Your task to perform on an android device: Go to Yahoo.com Image 0: 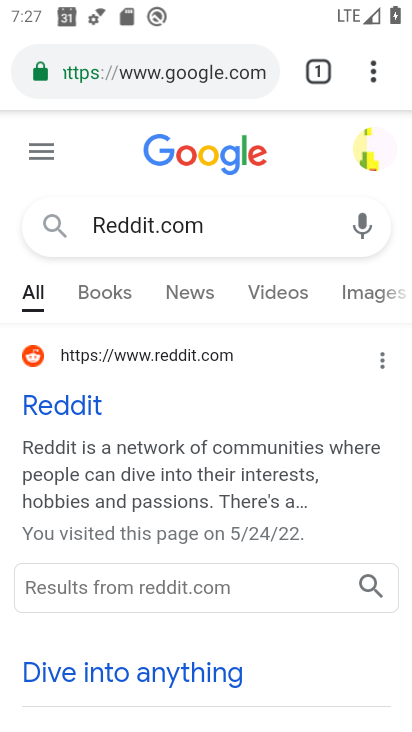
Step 0: press home button
Your task to perform on an android device: Go to Yahoo.com Image 1: 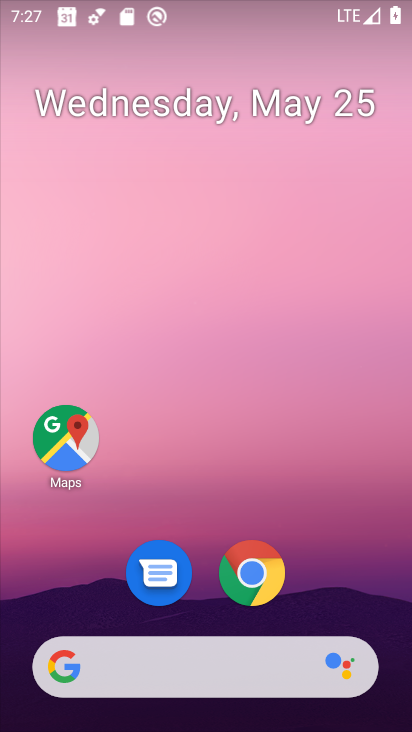
Step 1: click (244, 567)
Your task to perform on an android device: Go to Yahoo.com Image 2: 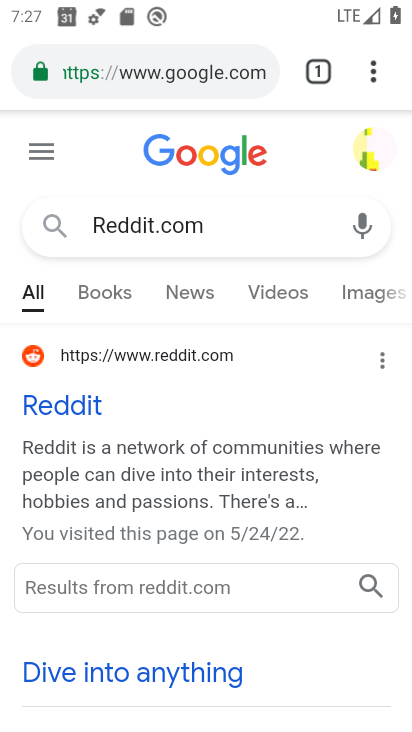
Step 2: click (263, 66)
Your task to perform on an android device: Go to Yahoo.com Image 3: 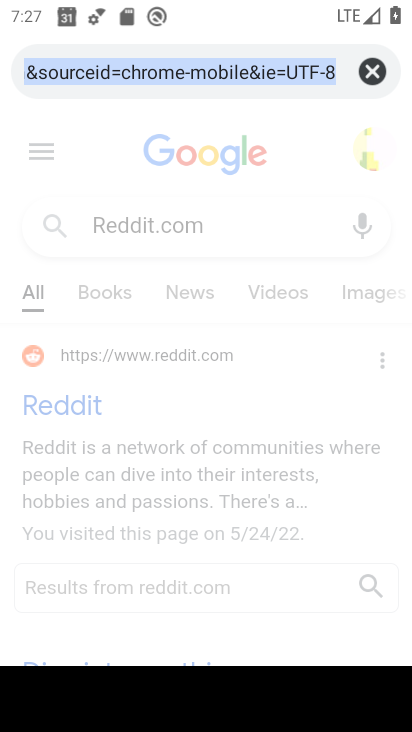
Step 3: click (373, 69)
Your task to perform on an android device: Go to Yahoo.com Image 4: 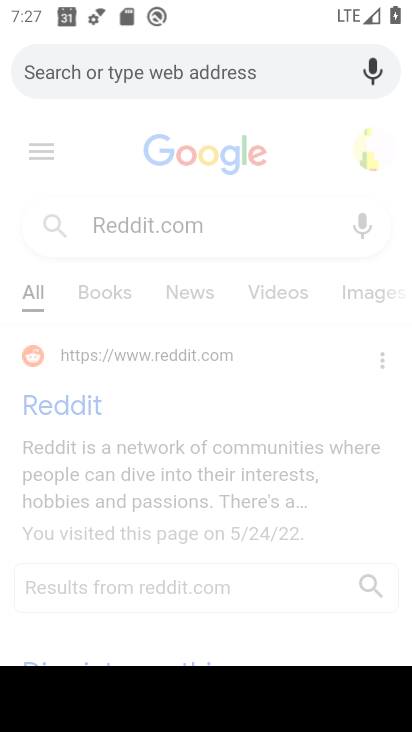
Step 4: type "Yahoo.com"
Your task to perform on an android device: Go to Yahoo.com Image 5: 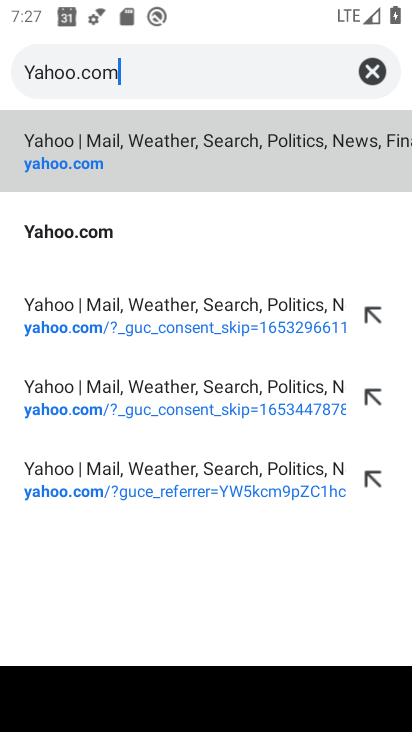
Step 5: click (89, 228)
Your task to perform on an android device: Go to Yahoo.com Image 6: 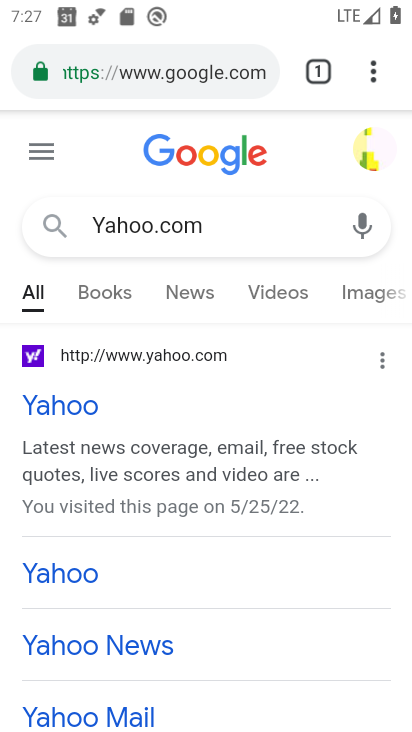
Step 6: click (75, 407)
Your task to perform on an android device: Go to Yahoo.com Image 7: 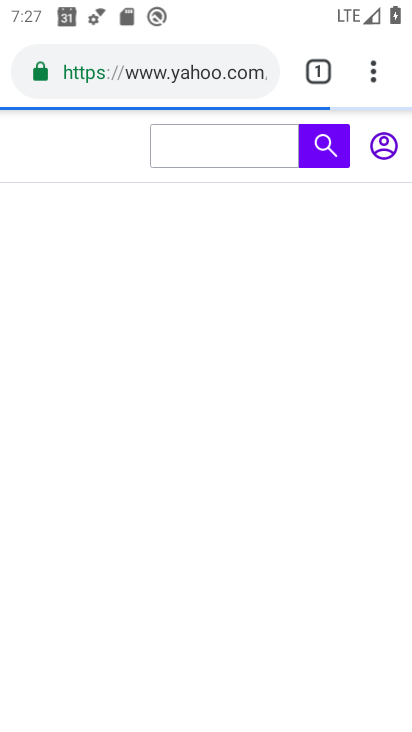
Step 7: task complete